Your task to perform on an android device: View the shopping cart on amazon.com. Search for "duracell triple a" on amazon.com, select the first entry, add it to the cart, then select checkout. Image 0: 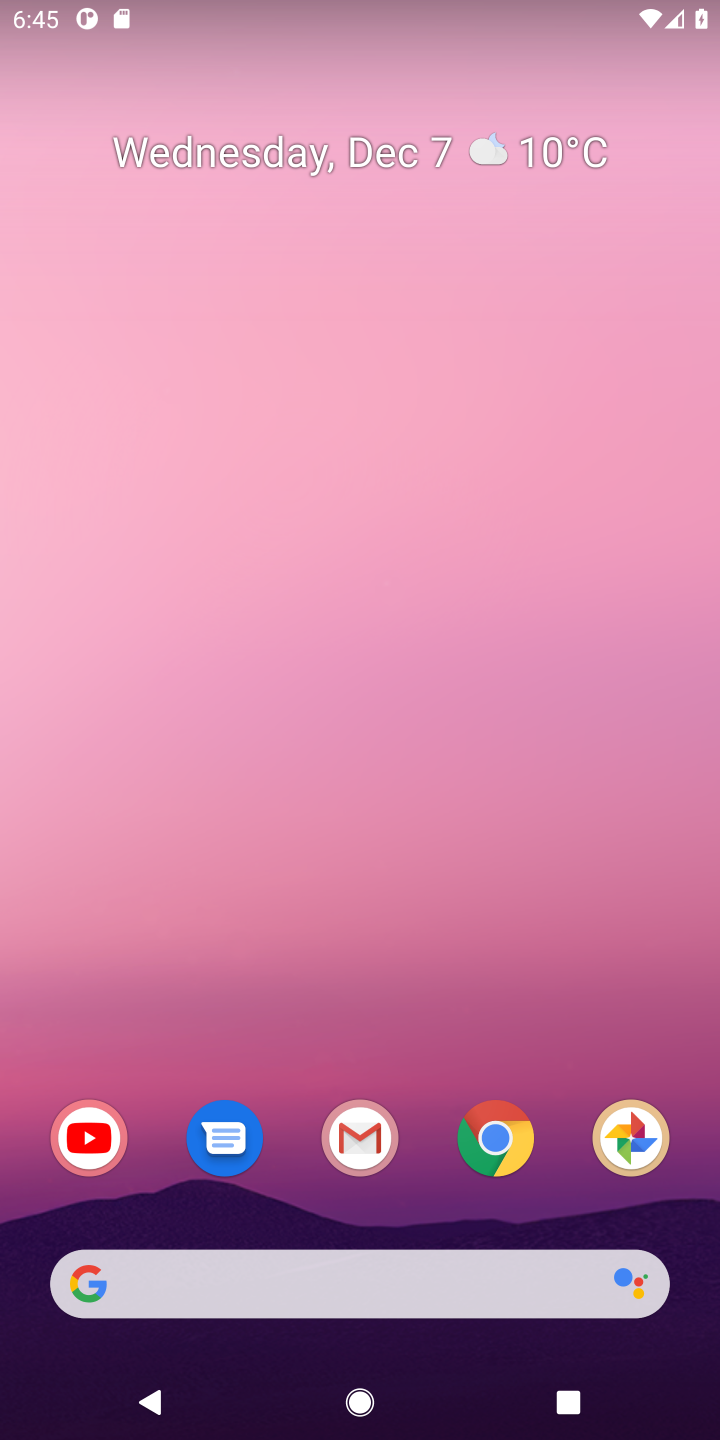
Step 0: press home button
Your task to perform on an android device: View the shopping cart on amazon.com. Search for "duracell triple a" on amazon.com, select the first entry, add it to the cart, then select checkout. Image 1: 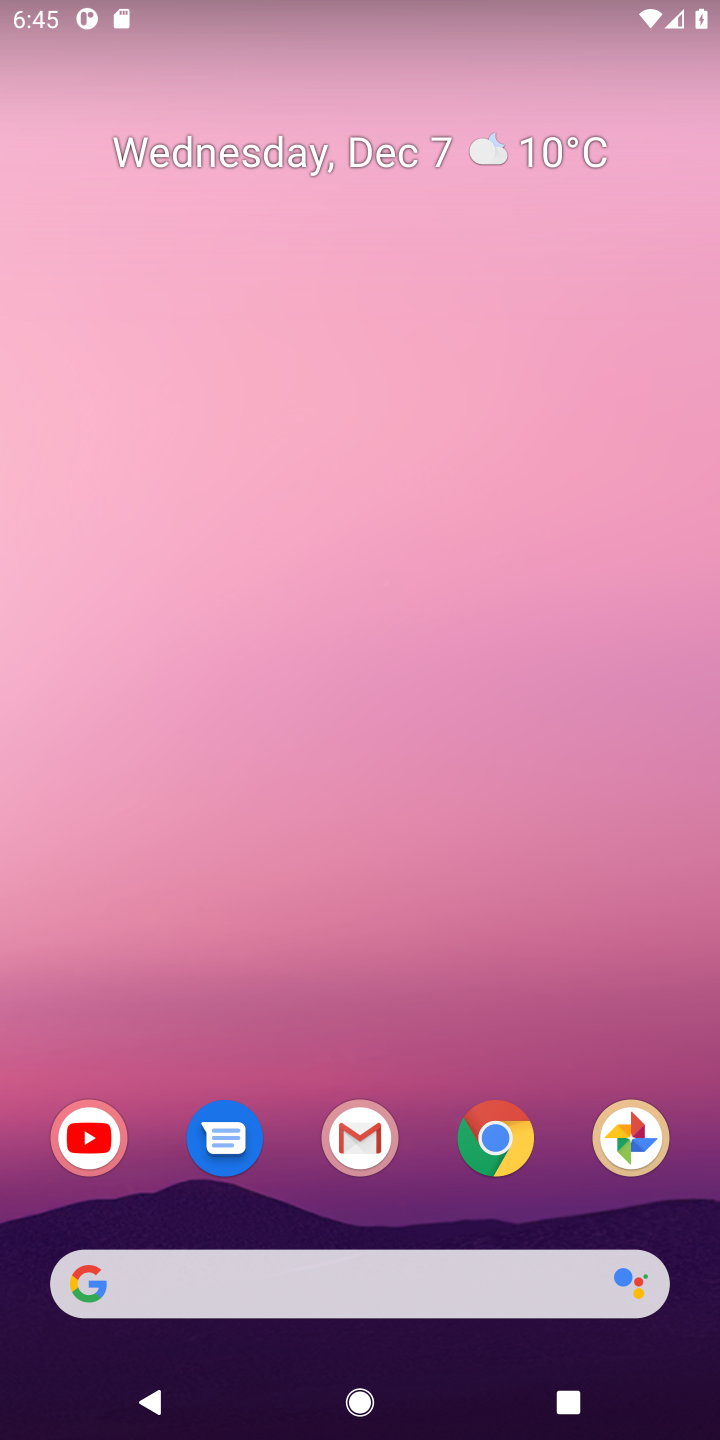
Step 1: click (152, 1288)
Your task to perform on an android device: View the shopping cart on amazon.com. Search for "duracell triple a" on amazon.com, select the first entry, add it to the cart, then select checkout. Image 2: 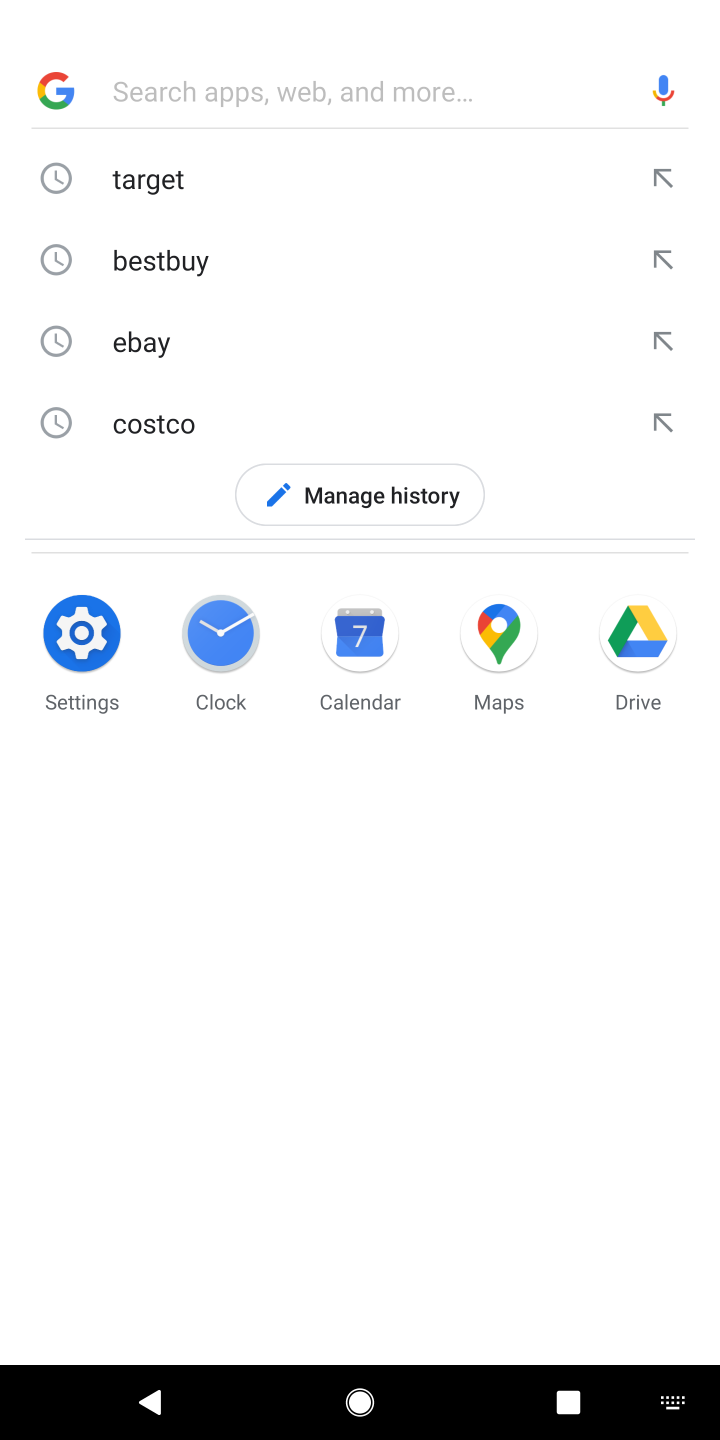
Step 2: type "amazon.com"
Your task to perform on an android device: View the shopping cart on amazon.com. Search for "duracell triple a" on amazon.com, select the first entry, add it to the cart, then select checkout. Image 3: 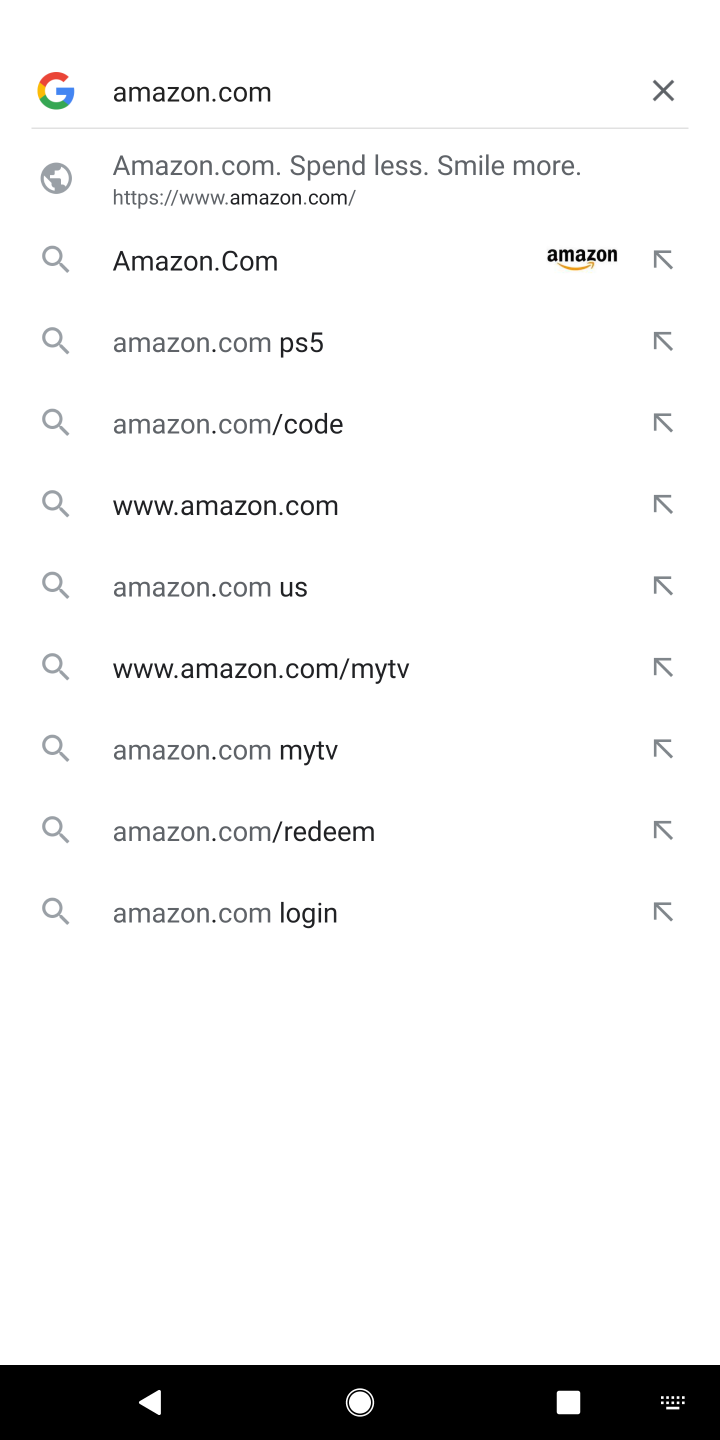
Step 3: press enter
Your task to perform on an android device: View the shopping cart on amazon.com. Search for "duracell triple a" on amazon.com, select the first entry, add it to the cart, then select checkout. Image 4: 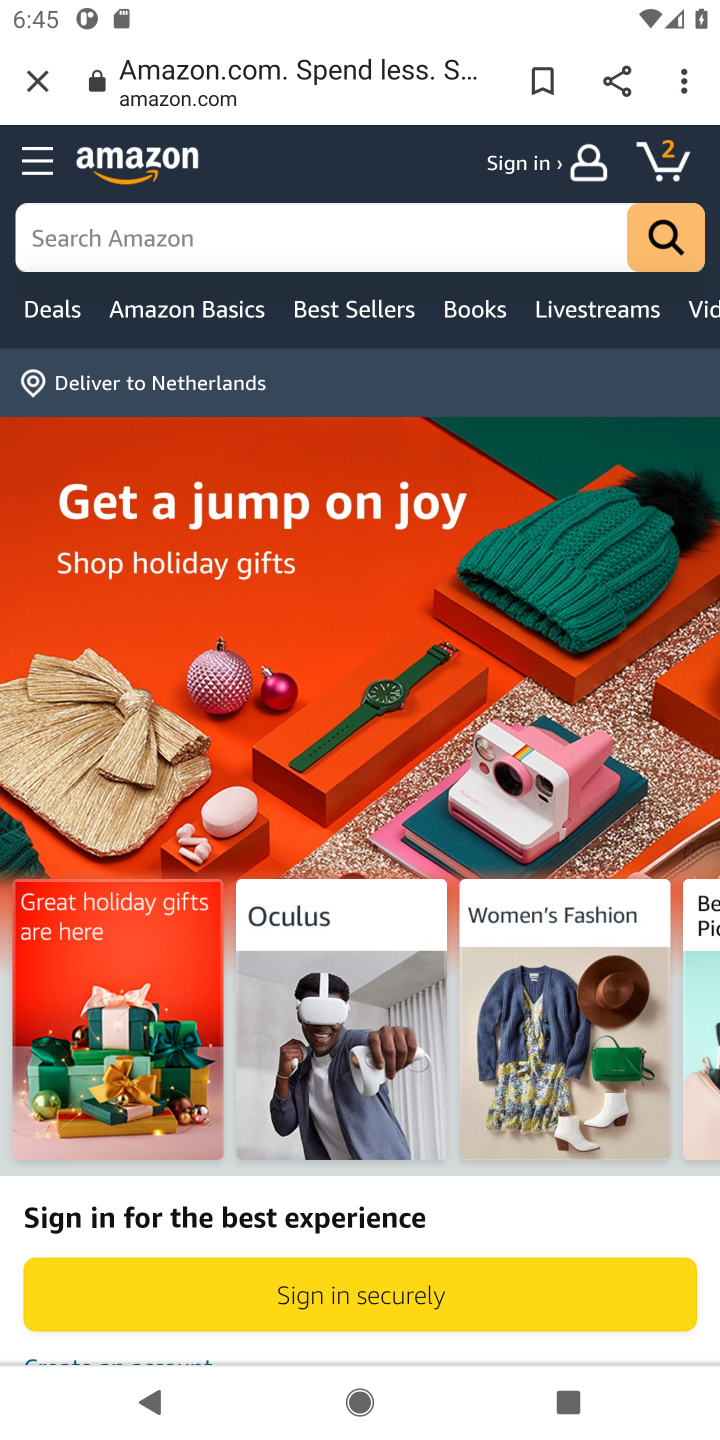
Step 4: click (660, 158)
Your task to perform on an android device: View the shopping cart on amazon.com. Search for "duracell triple a" on amazon.com, select the first entry, add it to the cart, then select checkout. Image 5: 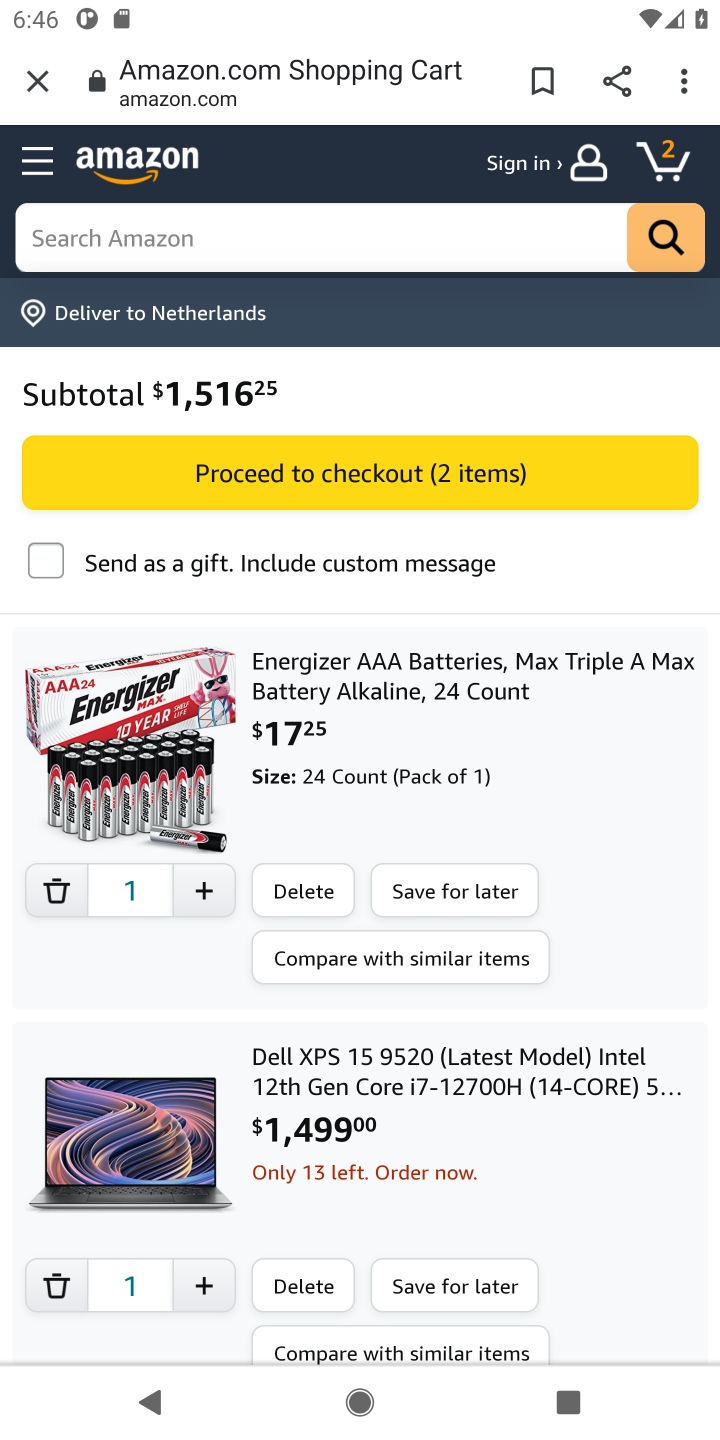
Step 5: click (435, 235)
Your task to perform on an android device: View the shopping cart on amazon.com. Search for "duracell triple a" on amazon.com, select the first entry, add it to the cart, then select checkout. Image 6: 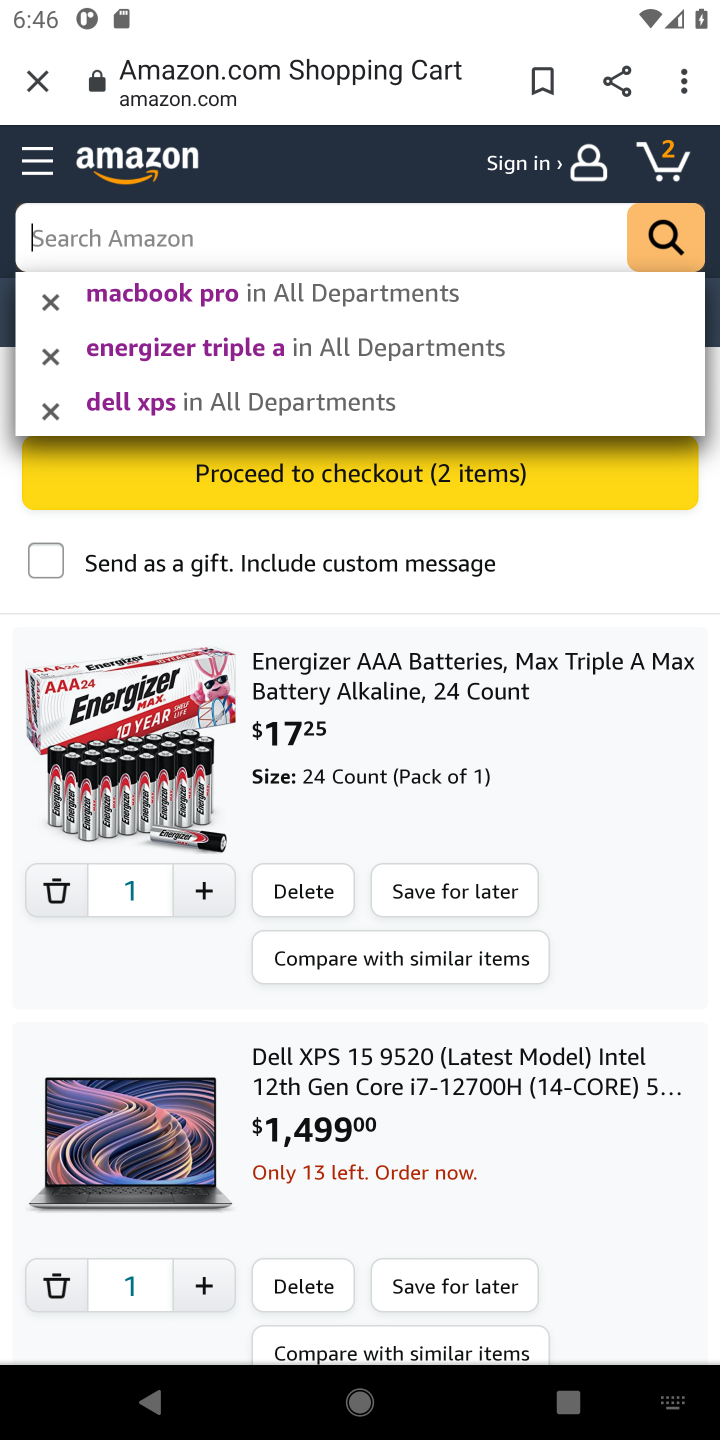
Step 6: type "duracell triple a"
Your task to perform on an android device: View the shopping cart on amazon.com. Search for "duracell triple a" on amazon.com, select the first entry, add it to the cart, then select checkout. Image 7: 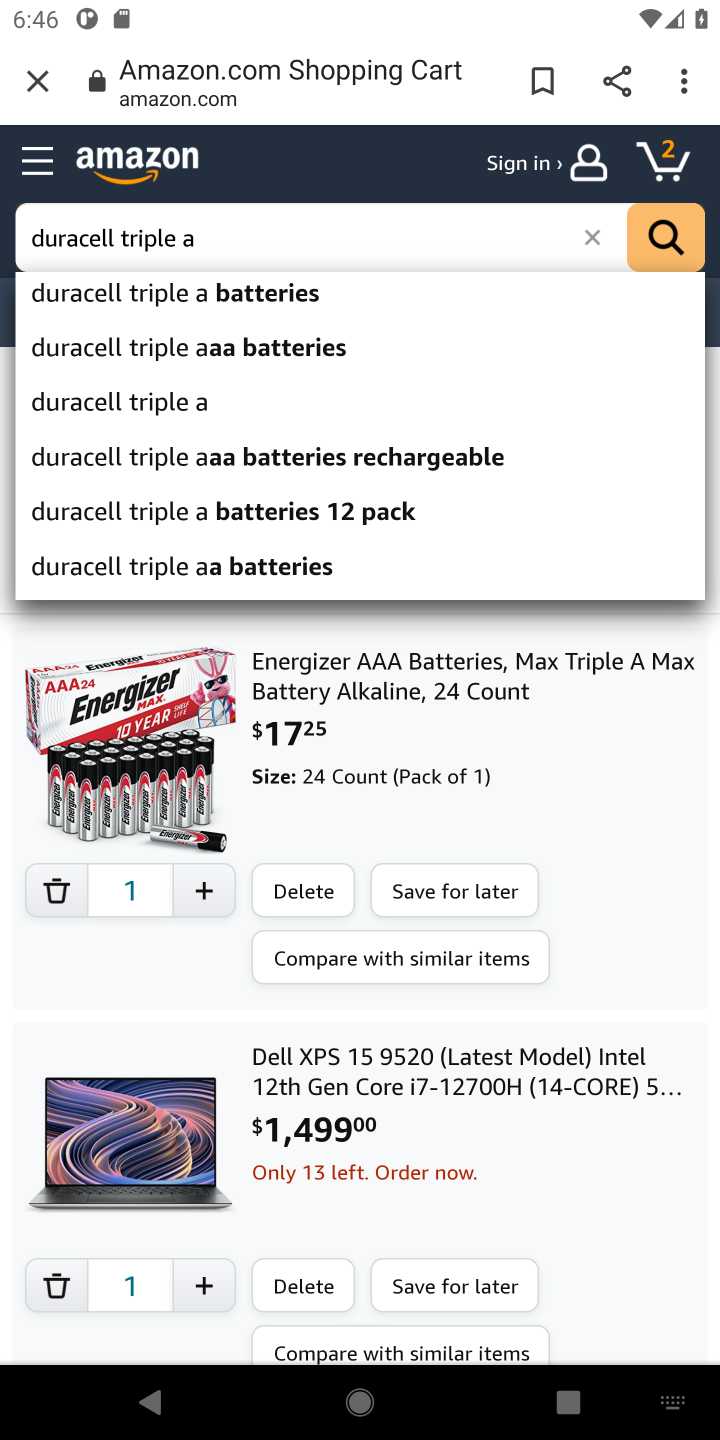
Step 7: click (665, 234)
Your task to perform on an android device: View the shopping cart on amazon.com. Search for "duracell triple a" on amazon.com, select the first entry, add it to the cart, then select checkout. Image 8: 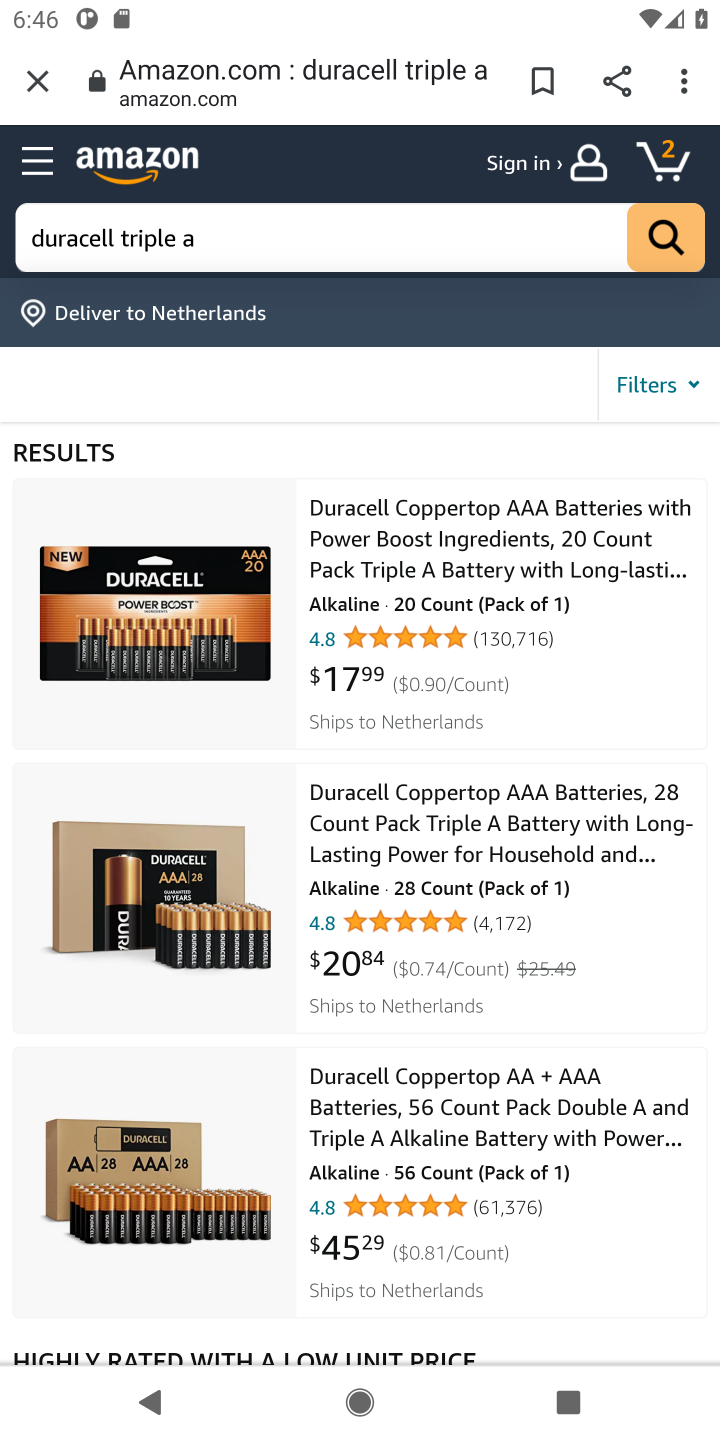
Step 8: click (464, 570)
Your task to perform on an android device: View the shopping cart on amazon.com. Search for "duracell triple a" on amazon.com, select the first entry, add it to the cart, then select checkout. Image 9: 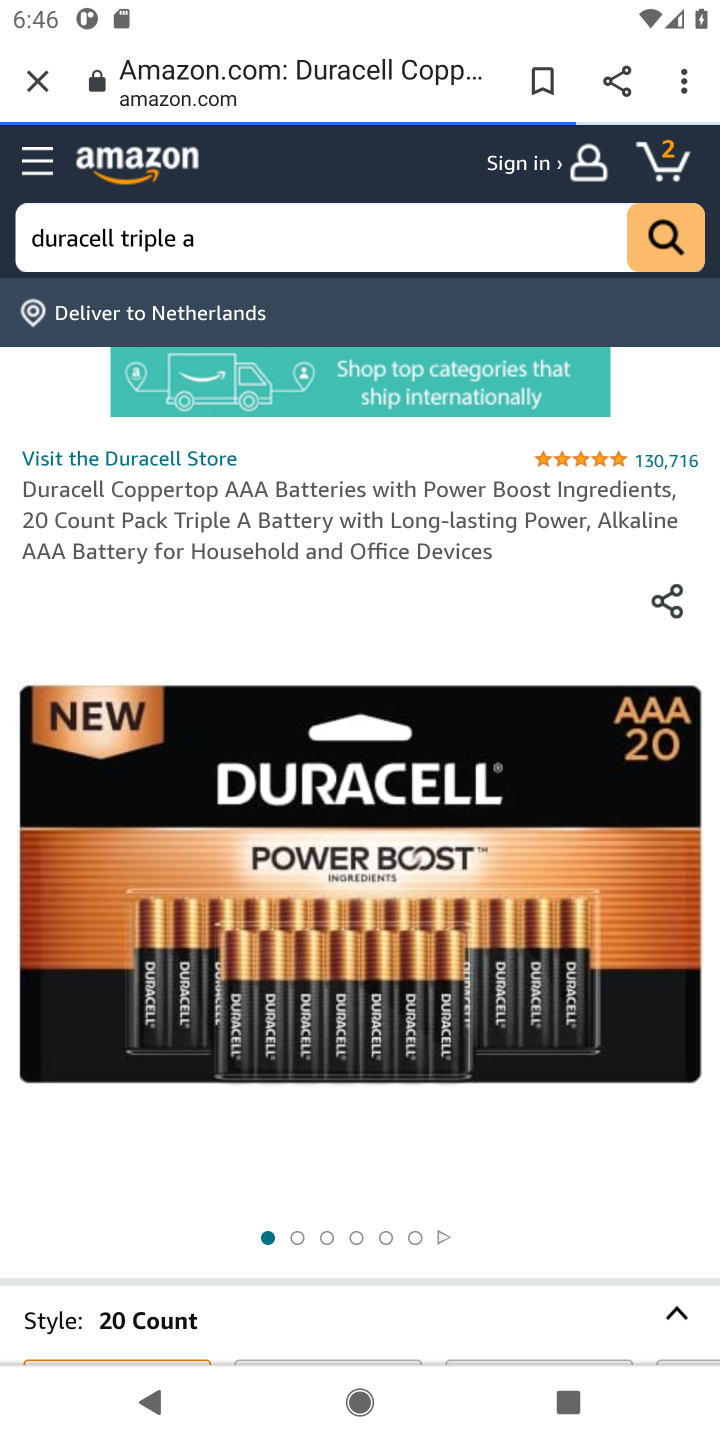
Step 9: drag from (477, 1113) to (501, 543)
Your task to perform on an android device: View the shopping cart on amazon.com. Search for "duracell triple a" on amazon.com, select the first entry, add it to the cart, then select checkout. Image 10: 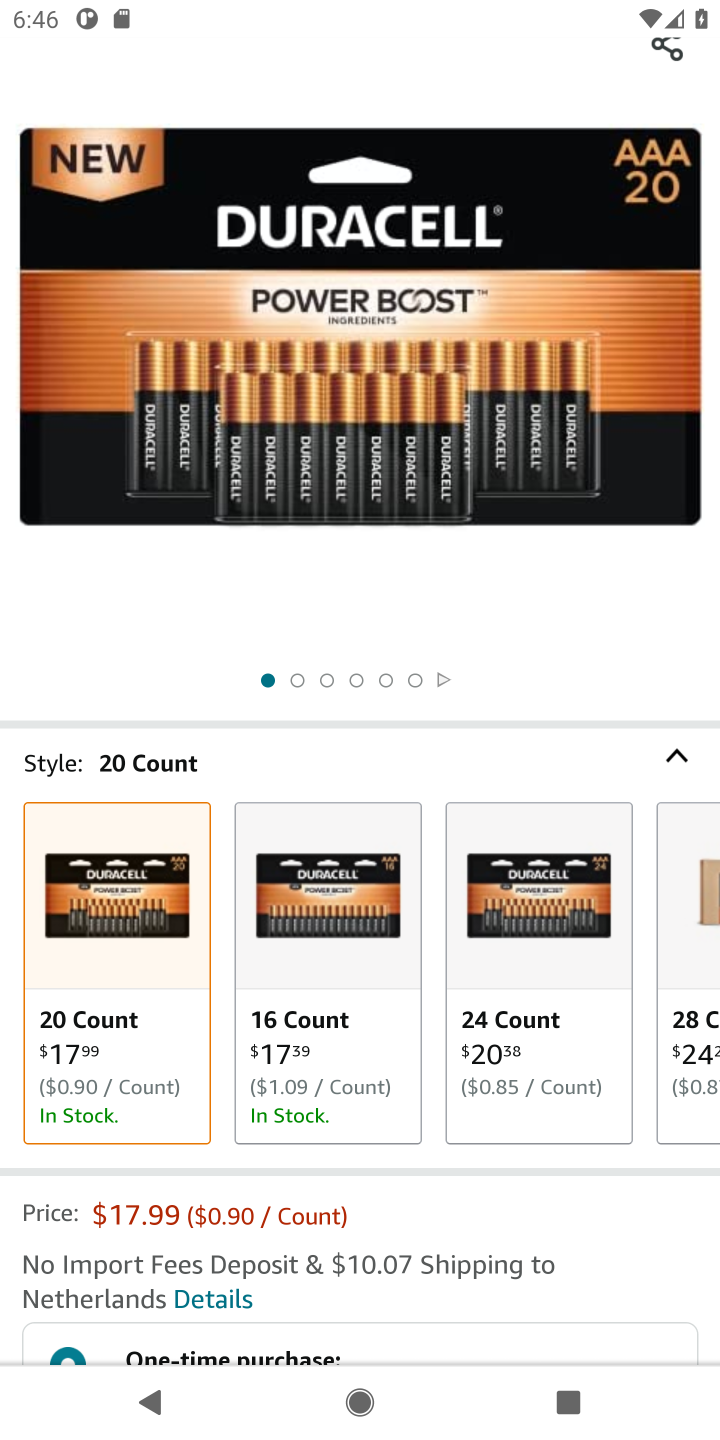
Step 10: drag from (400, 1117) to (434, 511)
Your task to perform on an android device: View the shopping cart on amazon.com. Search for "duracell triple a" on amazon.com, select the first entry, add it to the cart, then select checkout. Image 11: 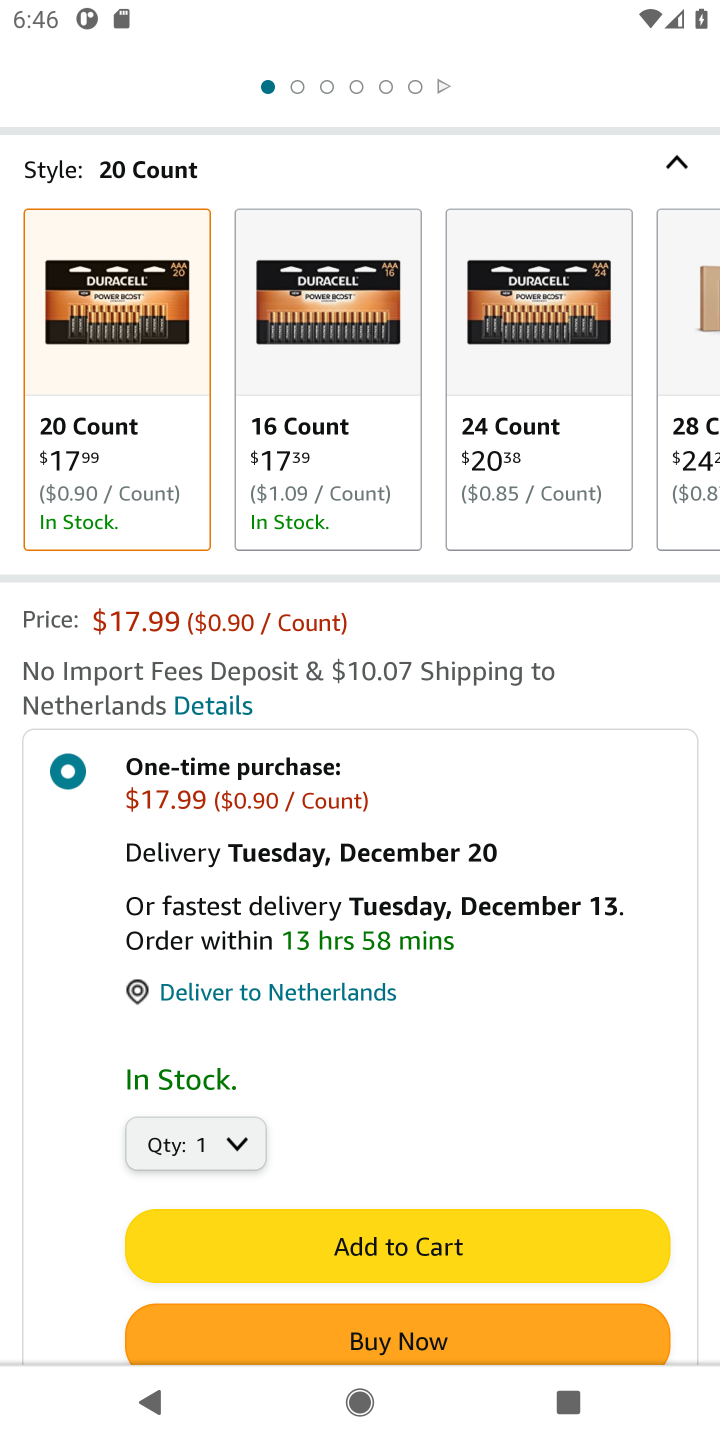
Step 11: drag from (389, 706) to (433, 320)
Your task to perform on an android device: View the shopping cart on amazon.com. Search for "duracell triple a" on amazon.com, select the first entry, add it to the cart, then select checkout. Image 12: 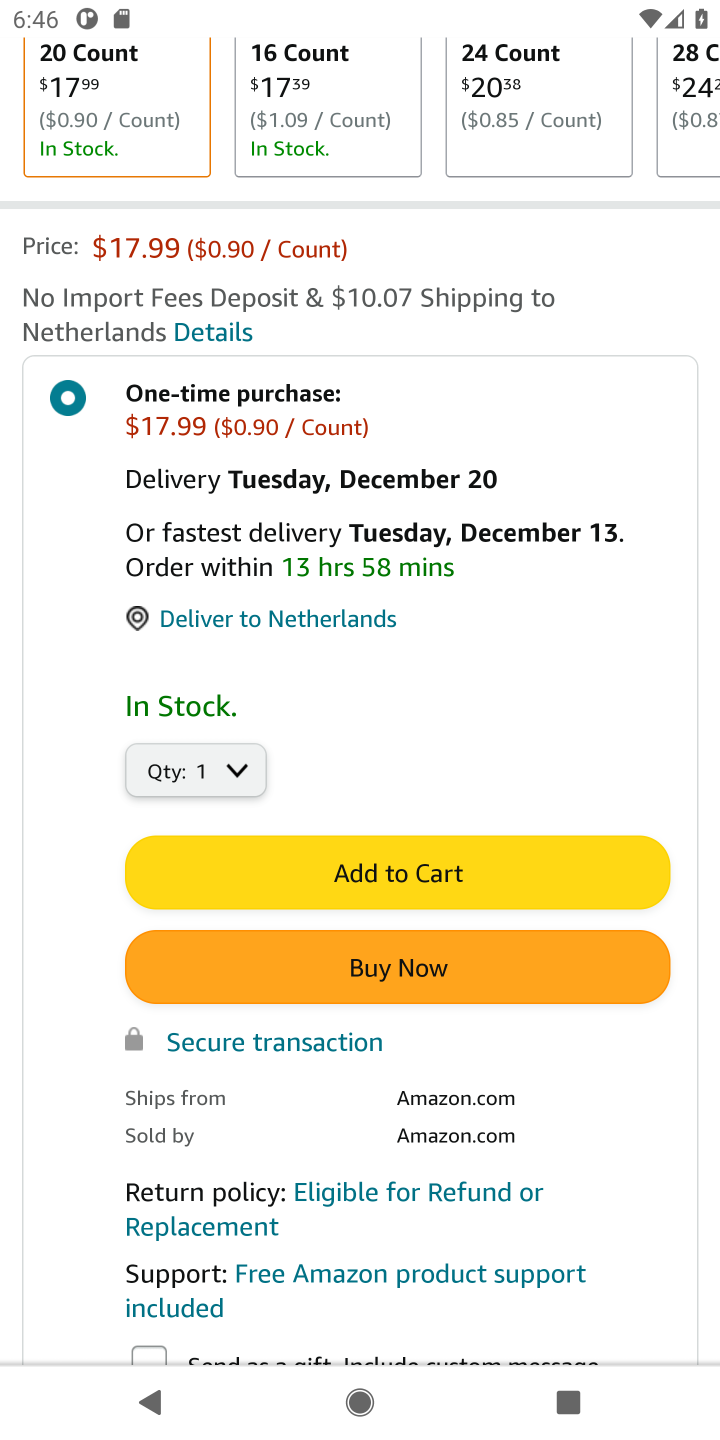
Step 12: click (367, 884)
Your task to perform on an android device: View the shopping cart on amazon.com. Search for "duracell triple a" on amazon.com, select the first entry, add it to the cart, then select checkout. Image 13: 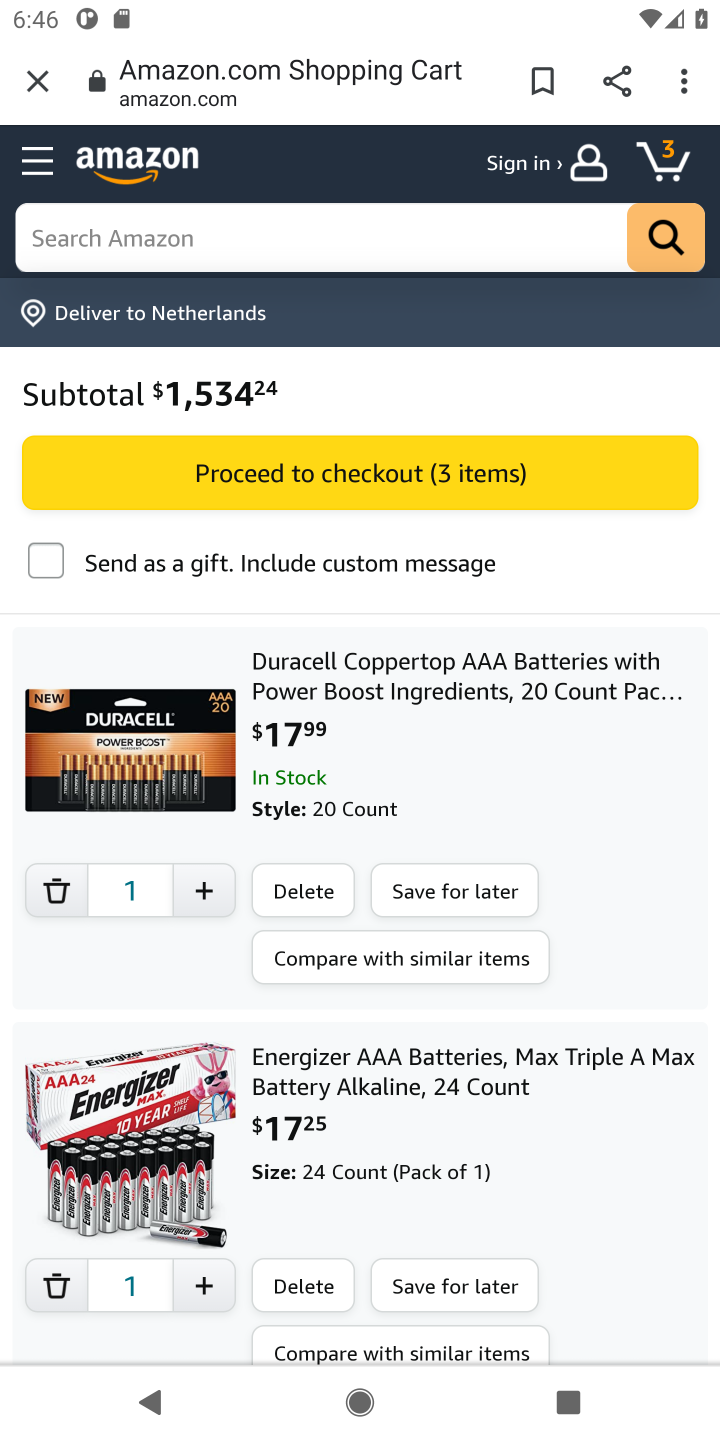
Step 13: task complete